Your task to perform on an android device: Open the stopwatch Image 0: 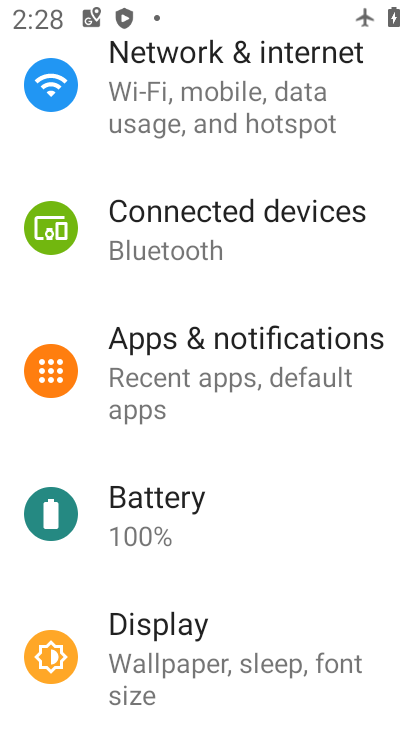
Step 0: press home button
Your task to perform on an android device: Open the stopwatch Image 1: 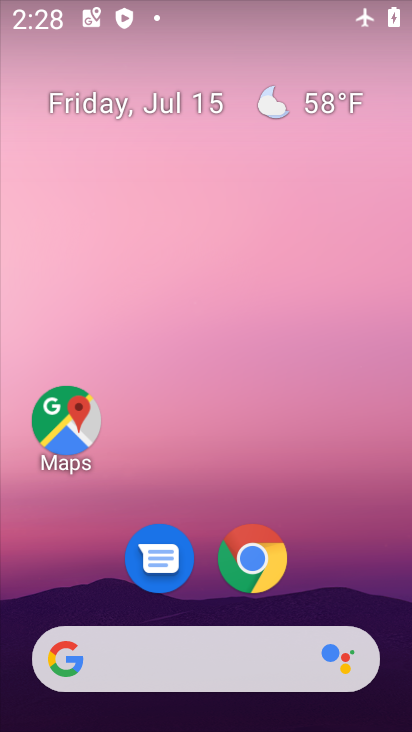
Step 1: drag from (371, 572) to (391, 128)
Your task to perform on an android device: Open the stopwatch Image 2: 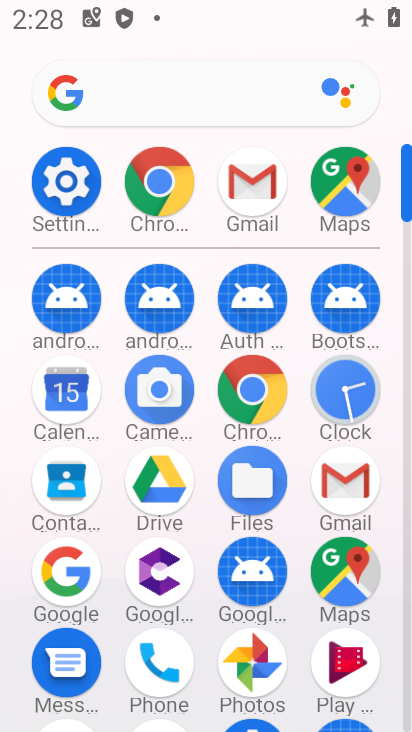
Step 2: click (354, 379)
Your task to perform on an android device: Open the stopwatch Image 3: 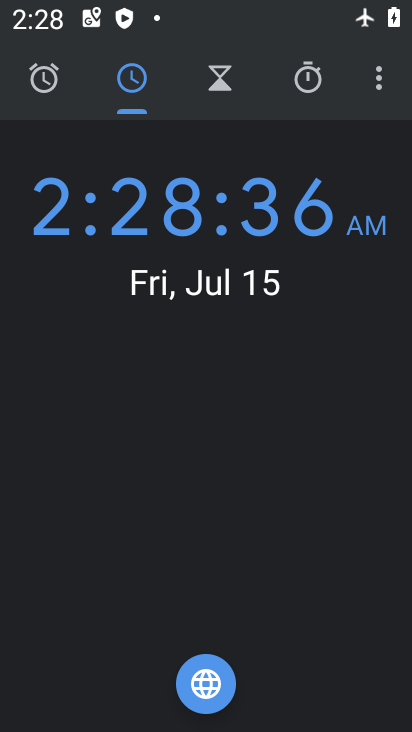
Step 3: click (313, 84)
Your task to perform on an android device: Open the stopwatch Image 4: 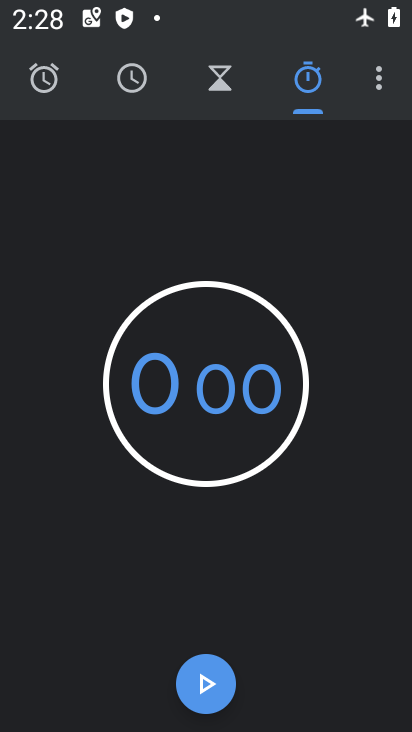
Step 4: task complete